Your task to perform on an android device: Go to Yahoo.com Image 0: 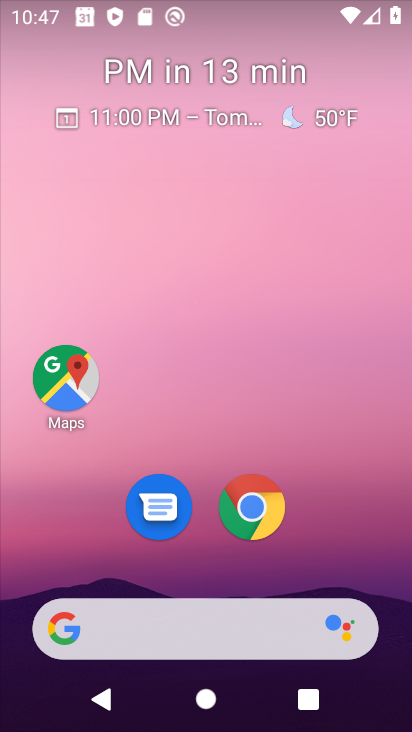
Step 0: click (246, 496)
Your task to perform on an android device: Go to Yahoo.com Image 1: 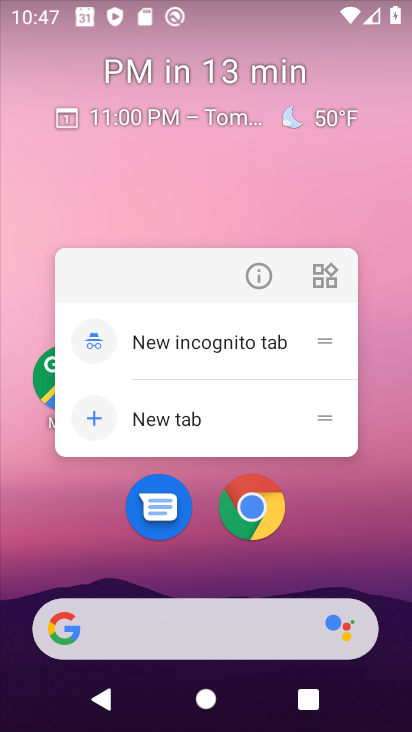
Step 1: click (251, 501)
Your task to perform on an android device: Go to Yahoo.com Image 2: 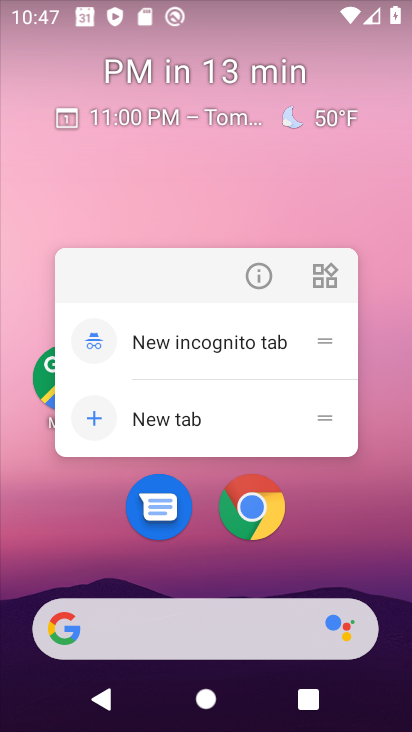
Step 2: click (263, 514)
Your task to perform on an android device: Go to Yahoo.com Image 3: 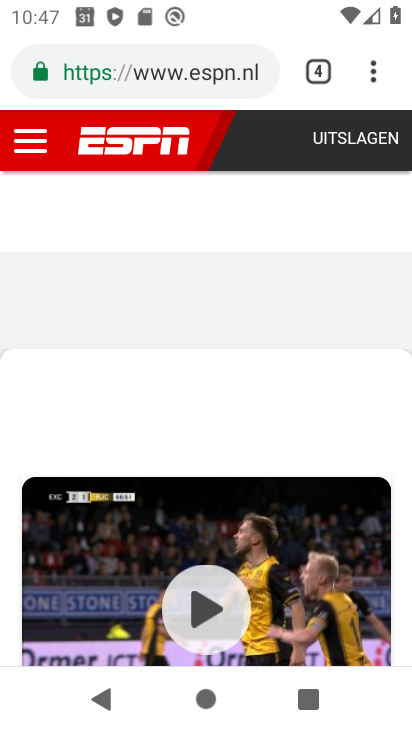
Step 3: click (326, 58)
Your task to perform on an android device: Go to Yahoo.com Image 4: 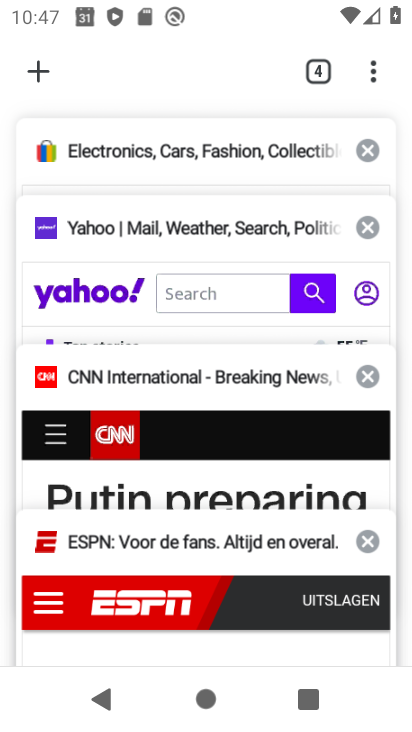
Step 4: click (106, 262)
Your task to perform on an android device: Go to Yahoo.com Image 5: 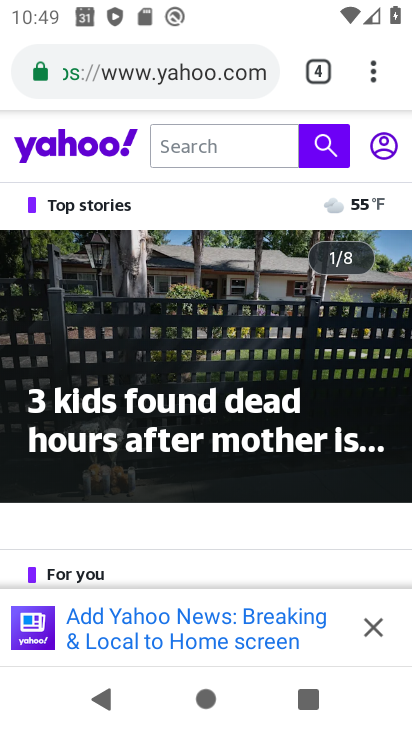
Step 5: task complete